Your task to perform on an android device: Open notification settings Image 0: 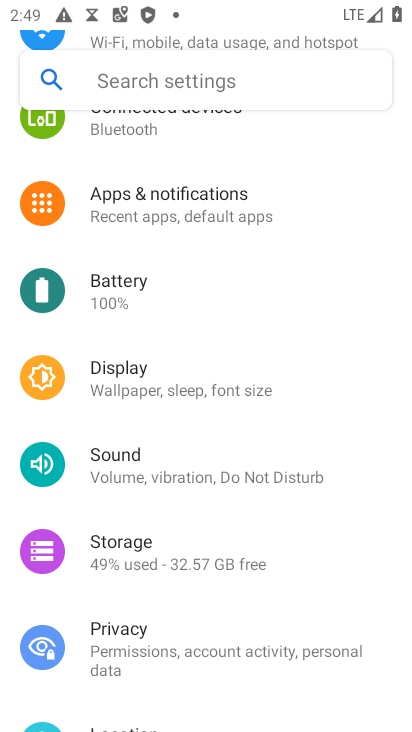
Step 0: click (209, 195)
Your task to perform on an android device: Open notification settings Image 1: 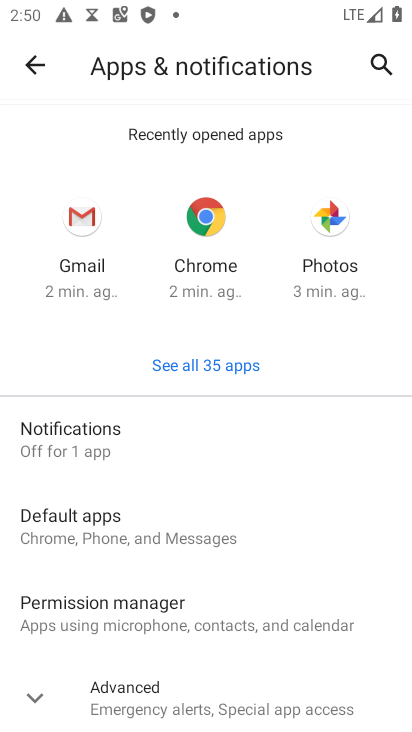
Step 1: click (154, 450)
Your task to perform on an android device: Open notification settings Image 2: 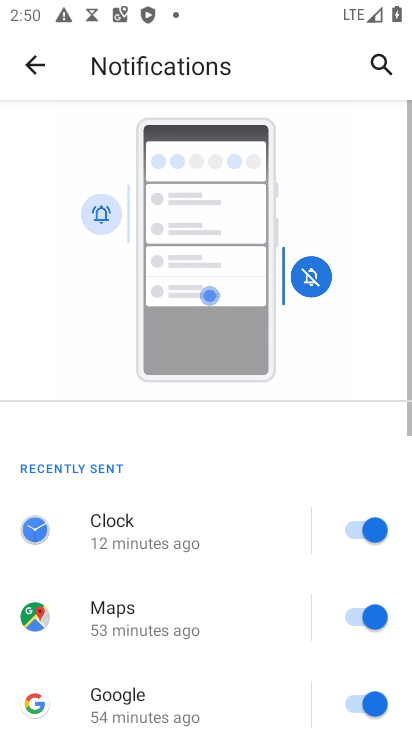
Step 2: task complete